Your task to perform on an android device: Open location settings Image 0: 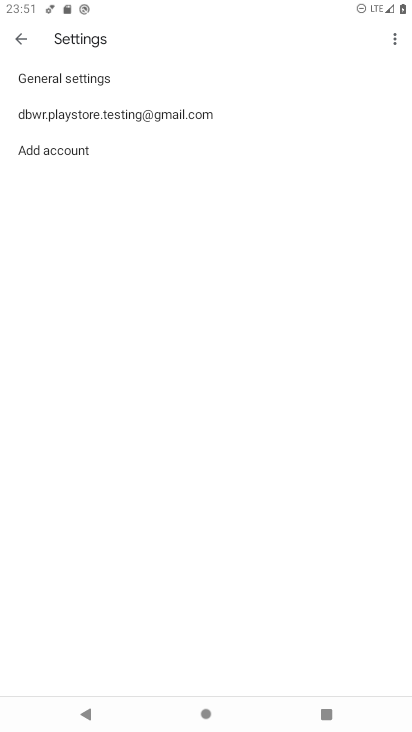
Step 0: press home button
Your task to perform on an android device: Open location settings Image 1: 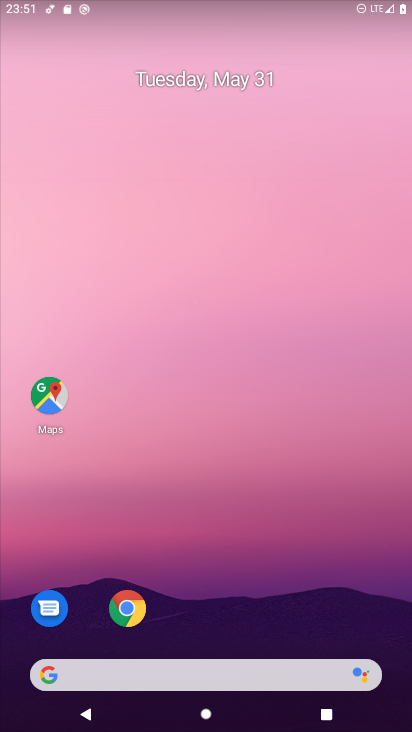
Step 1: drag from (234, 608) to (127, 150)
Your task to perform on an android device: Open location settings Image 2: 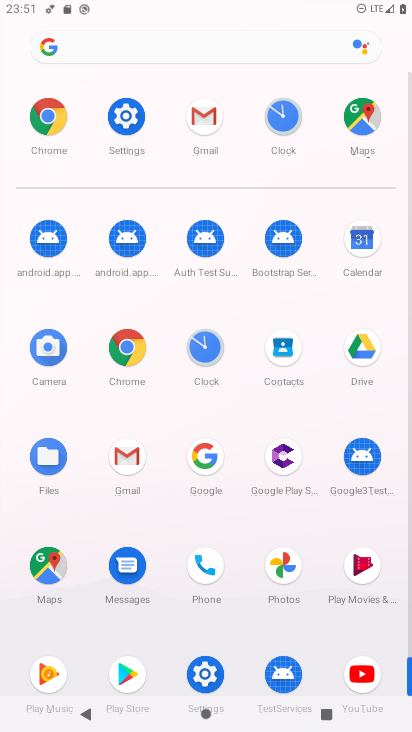
Step 2: click (135, 128)
Your task to perform on an android device: Open location settings Image 3: 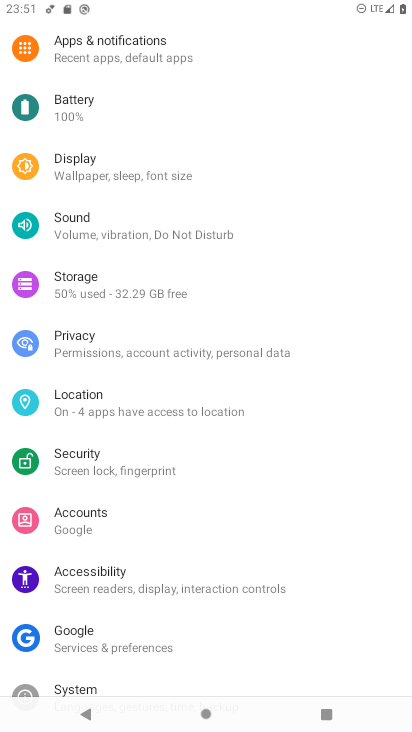
Step 3: click (147, 395)
Your task to perform on an android device: Open location settings Image 4: 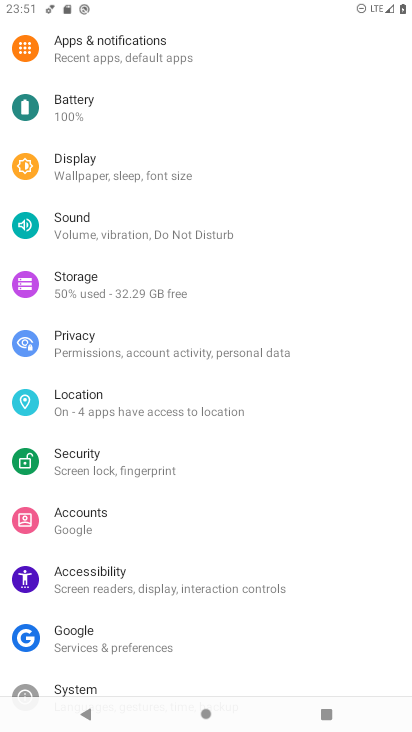
Step 4: click (151, 411)
Your task to perform on an android device: Open location settings Image 5: 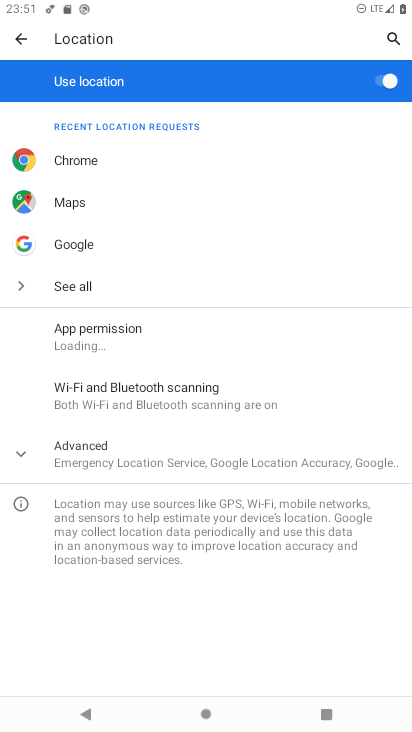
Step 5: task complete